Your task to perform on an android device: uninstall "Messenger Lite" Image 0: 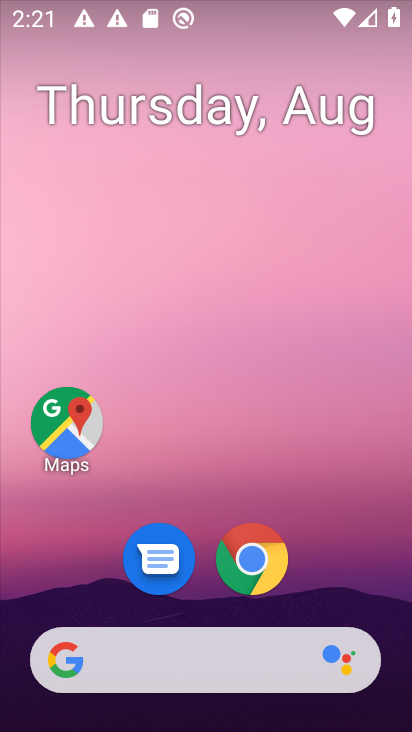
Step 0: drag from (118, 504) to (141, 204)
Your task to perform on an android device: uninstall "Messenger Lite" Image 1: 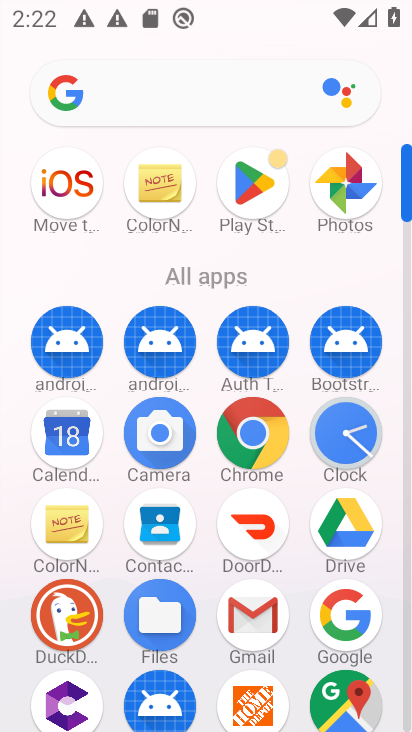
Step 1: click (256, 187)
Your task to perform on an android device: uninstall "Messenger Lite" Image 2: 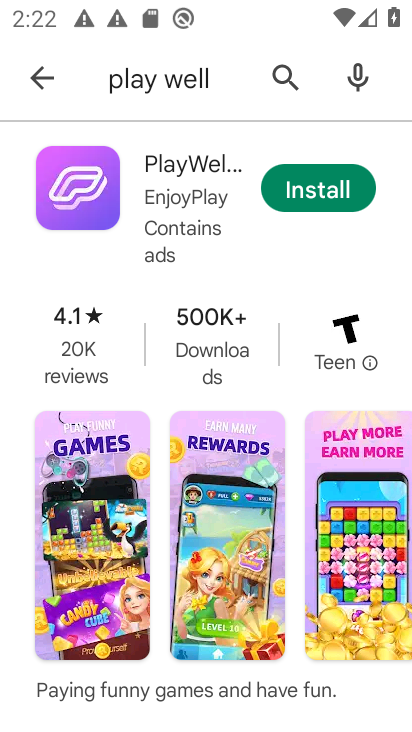
Step 2: click (284, 77)
Your task to perform on an android device: uninstall "Messenger Lite" Image 3: 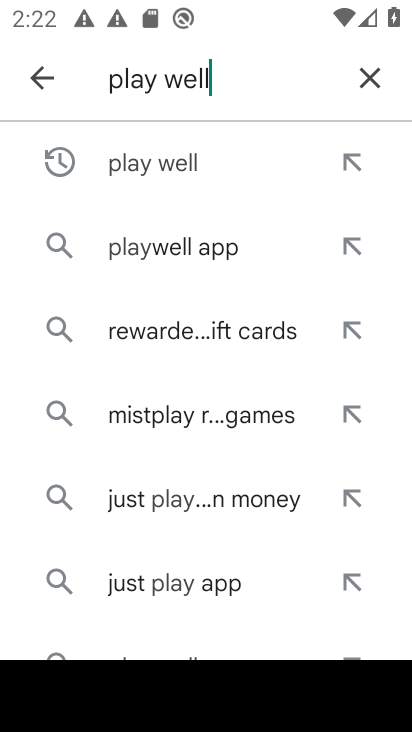
Step 3: click (375, 74)
Your task to perform on an android device: uninstall "Messenger Lite" Image 4: 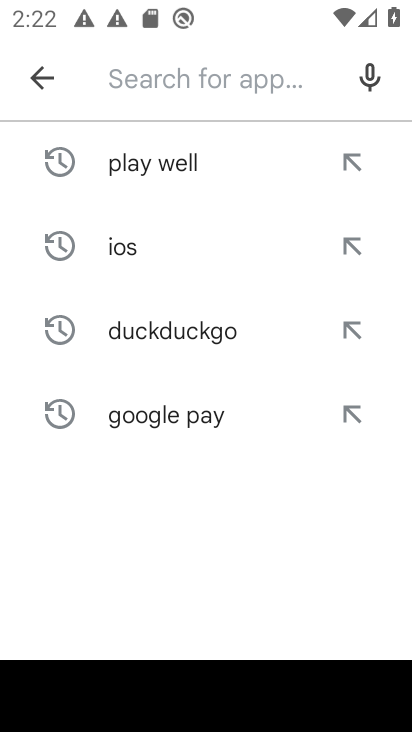
Step 4: click (208, 83)
Your task to perform on an android device: uninstall "Messenger Lite" Image 5: 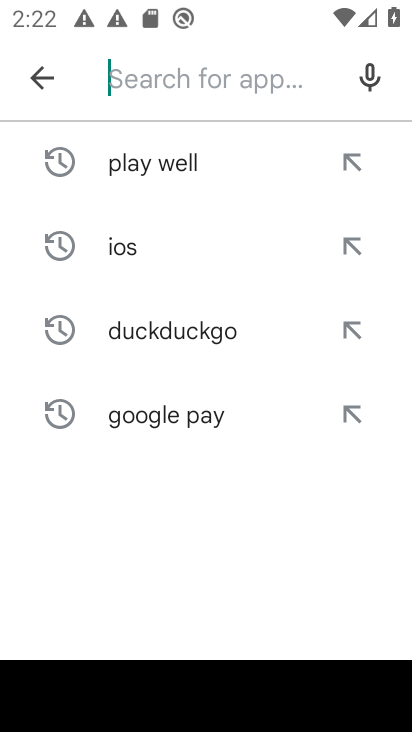
Step 5: type "Messenger Lite"
Your task to perform on an android device: uninstall "Messenger Lite" Image 6: 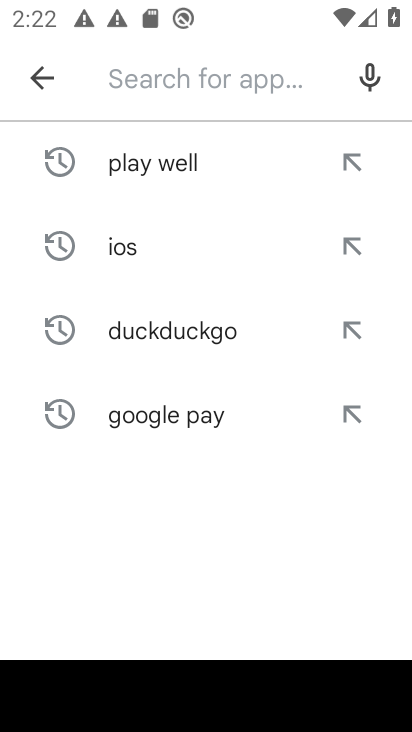
Step 6: click (267, 501)
Your task to perform on an android device: uninstall "Messenger Lite" Image 7: 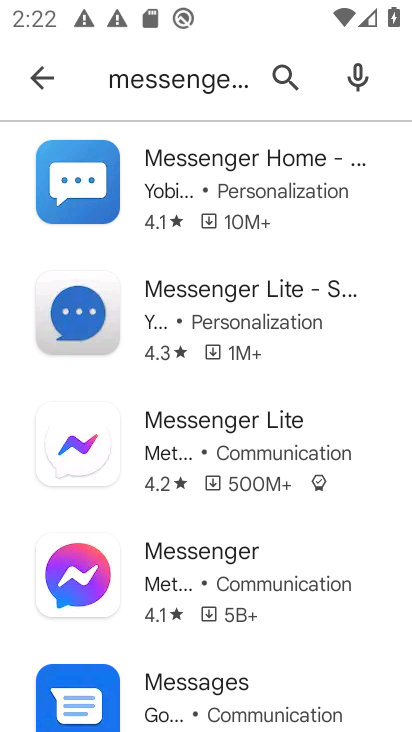
Step 7: click (292, 70)
Your task to perform on an android device: uninstall "Messenger Lite" Image 8: 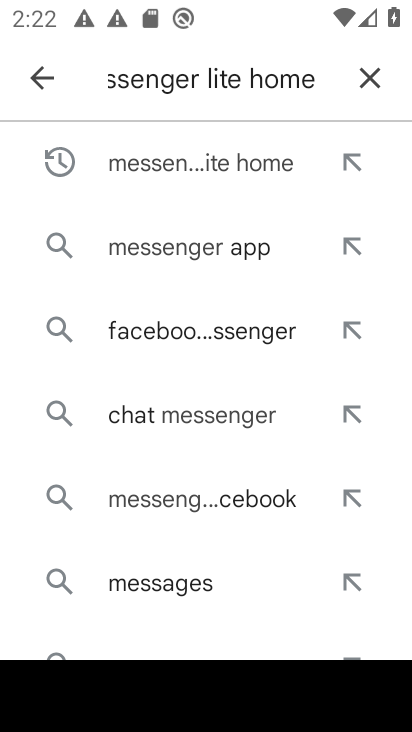
Step 8: click (369, 78)
Your task to perform on an android device: uninstall "Messenger Lite" Image 9: 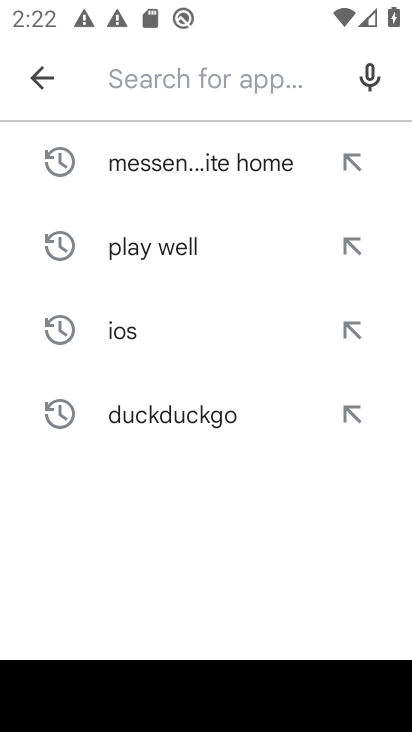
Step 9: type "Messenger Lite"
Your task to perform on an android device: uninstall "Messenger Lite" Image 10: 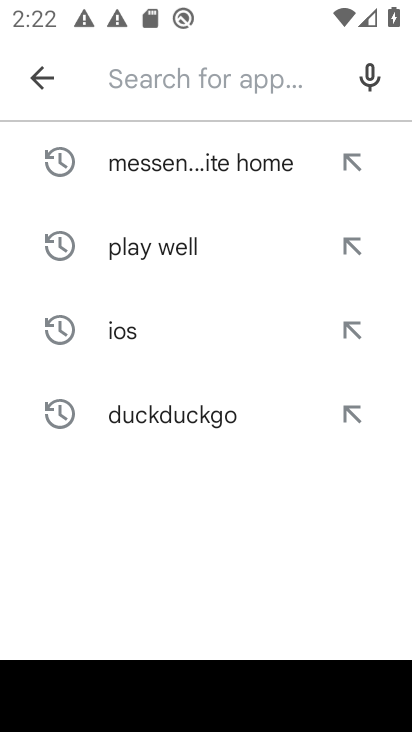
Step 10: click (135, 538)
Your task to perform on an android device: uninstall "Messenger Lite" Image 11: 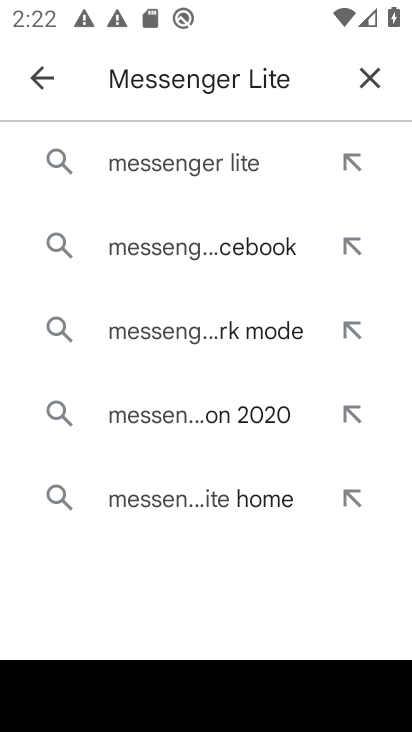
Step 11: click (238, 158)
Your task to perform on an android device: uninstall "Messenger Lite" Image 12: 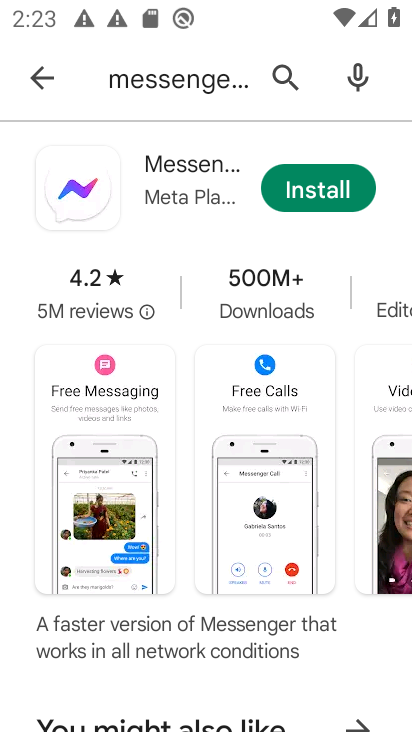
Step 12: click (175, 175)
Your task to perform on an android device: uninstall "Messenger Lite" Image 13: 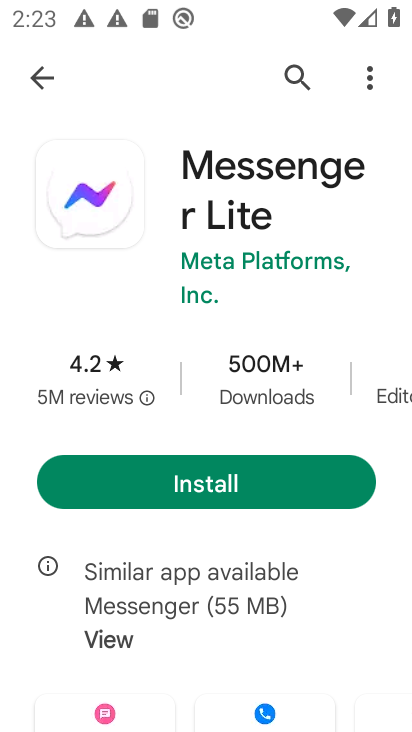
Step 13: task complete